Your task to perform on an android device: Go to eBay Image 0: 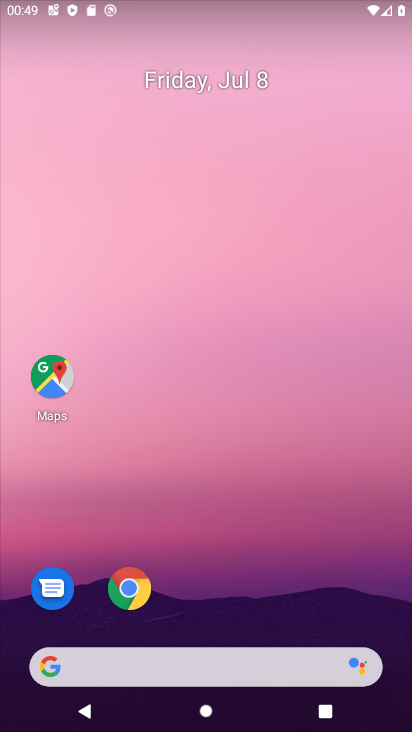
Step 0: drag from (186, 632) to (174, 79)
Your task to perform on an android device: Go to eBay Image 1: 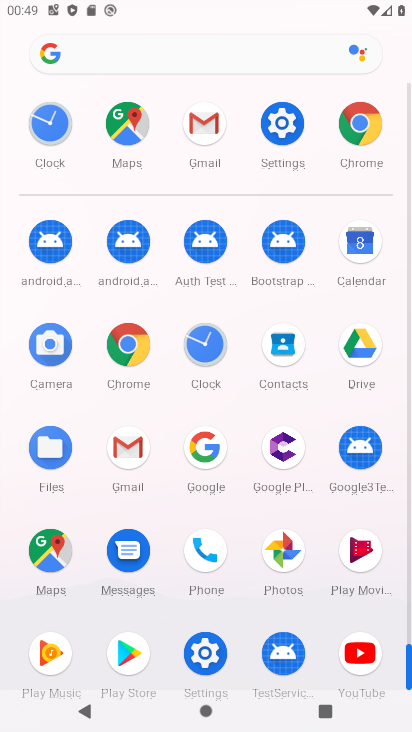
Step 1: click (358, 115)
Your task to perform on an android device: Go to eBay Image 2: 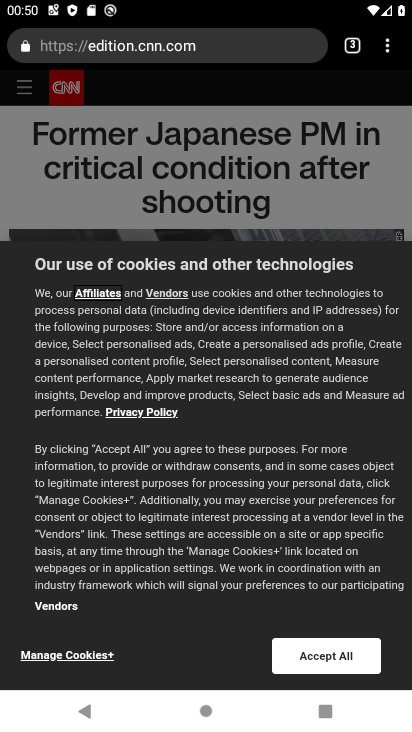
Step 2: click (395, 46)
Your task to perform on an android device: Go to eBay Image 3: 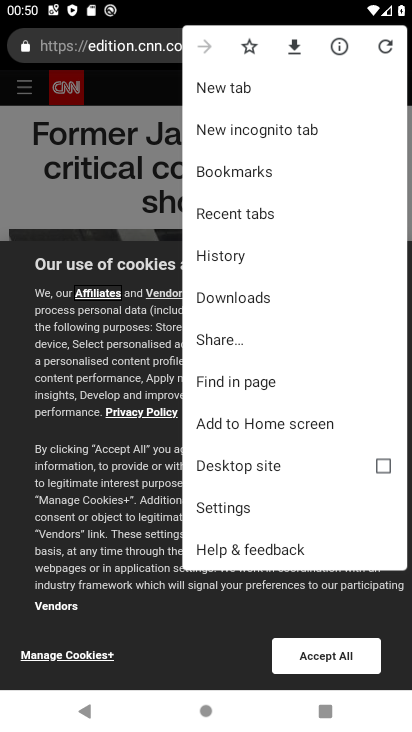
Step 3: drag from (222, 538) to (227, 72)
Your task to perform on an android device: Go to eBay Image 4: 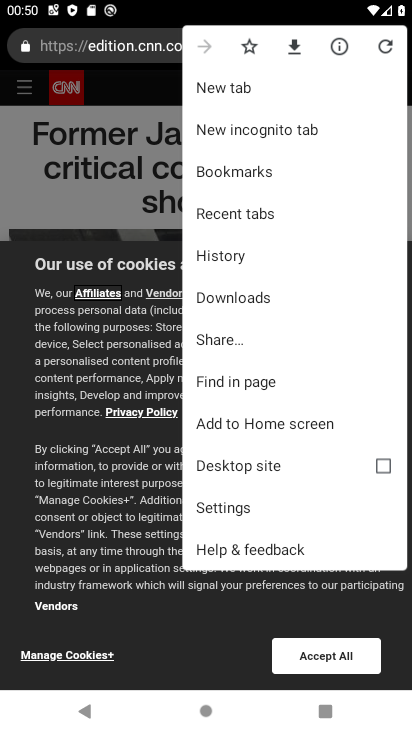
Step 4: click (116, 86)
Your task to perform on an android device: Go to eBay Image 5: 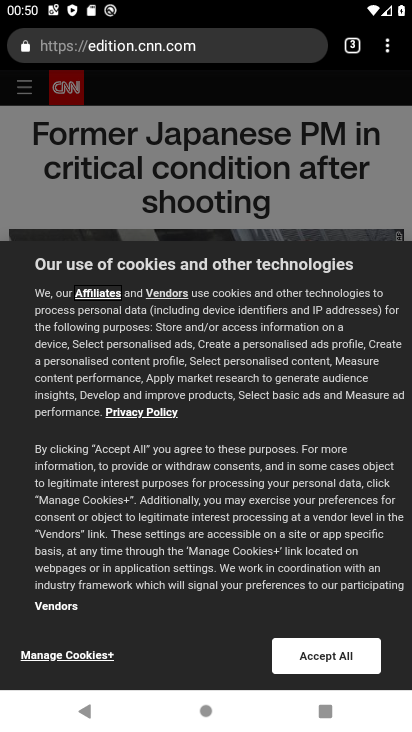
Step 5: click (233, 42)
Your task to perform on an android device: Go to eBay Image 6: 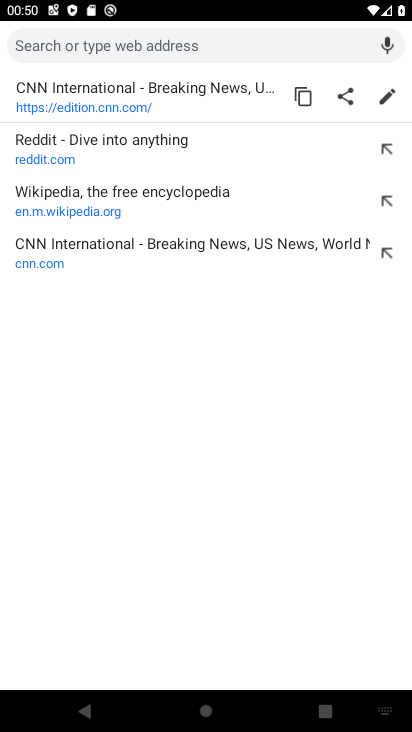
Step 6: type "ebay"
Your task to perform on an android device: Go to eBay Image 7: 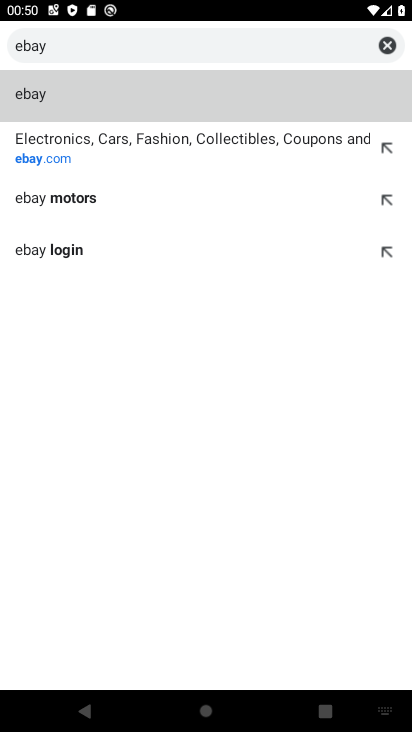
Step 7: click (76, 96)
Your task to perform on an android device: Go to eBay Image 8: 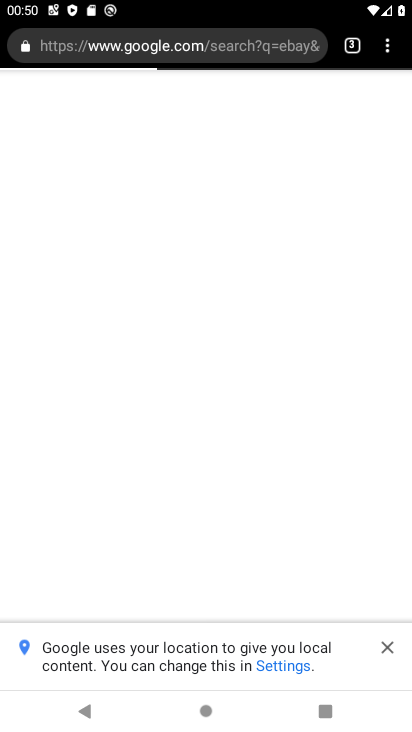
Step 8: drag from (226, 533) to (217, 279)
Your task to perform on an android device: Go to eBay Image 9: 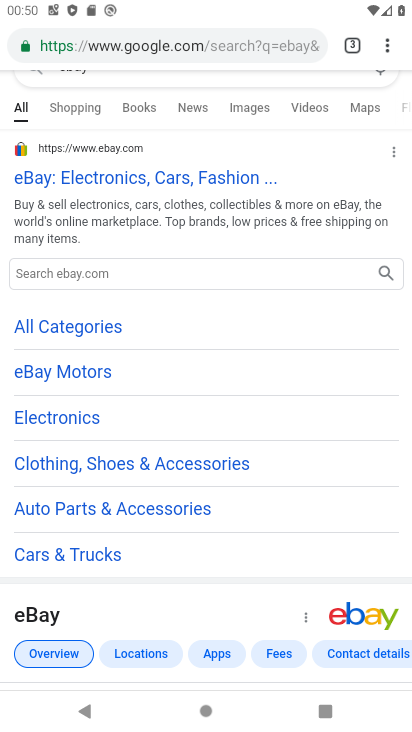
Step 9: drag from (191, 427) to (328, 13)
Your task to perform on an android device: Go to eBay Image 10: 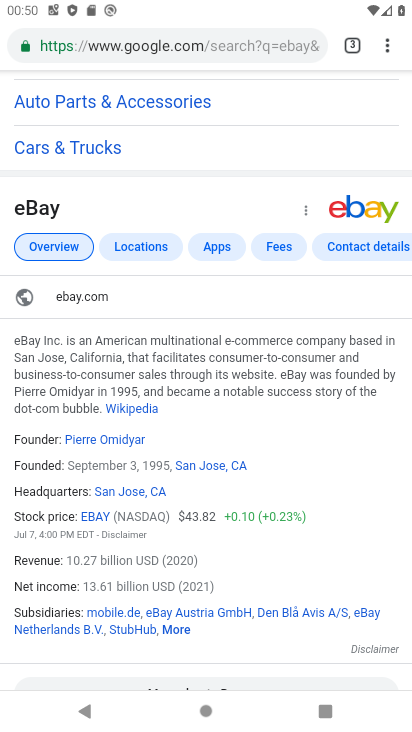
Step 10: drag from (155, 171) to (400, 714)
Your task to perform on an android device: Go to eBay Image 11: 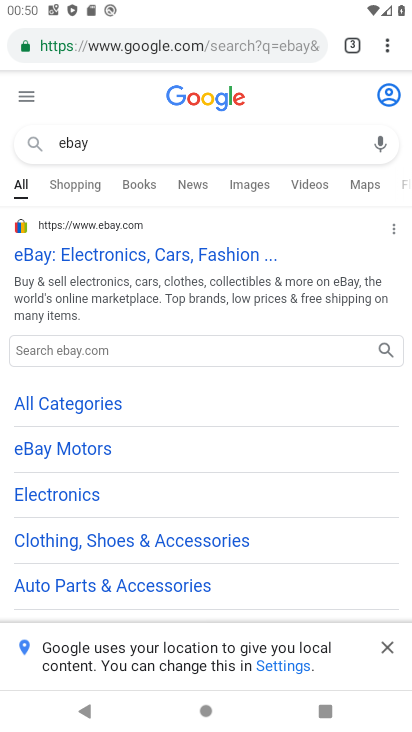
Step 11: click (65, 249)
Your task to perform on an android device: Go to eBay Image 12: 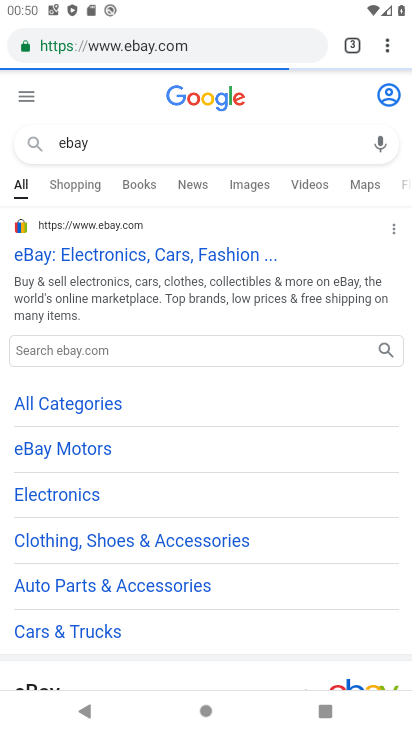
Step 12: task complete